Your task to perform on an android device: Search for Mexican restaurants on Maps Image 0: 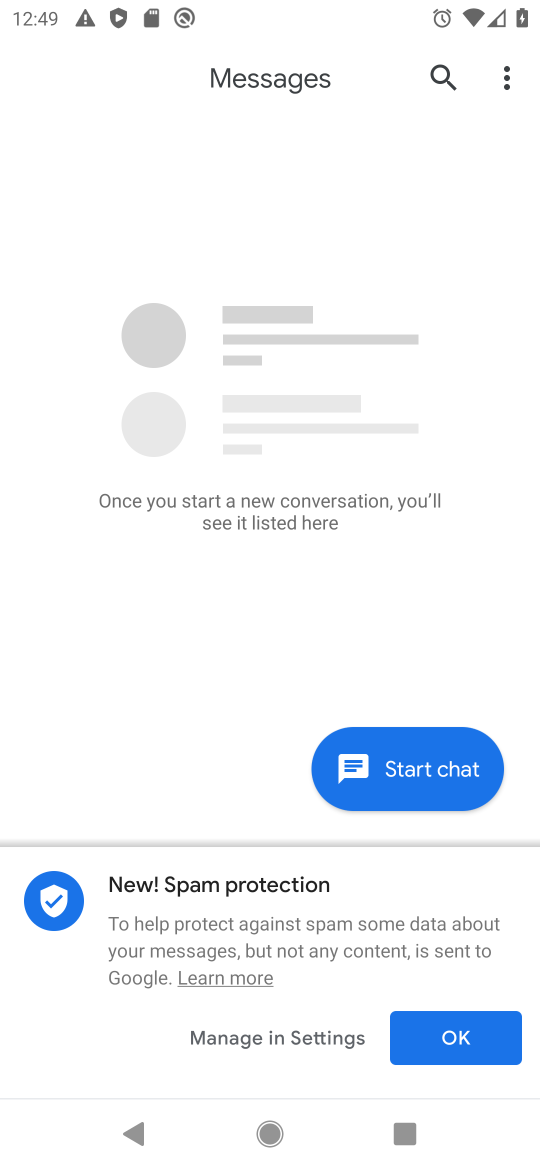
Step 0: task complete